Your task to perform on an android device: Open sound settings Image 0: 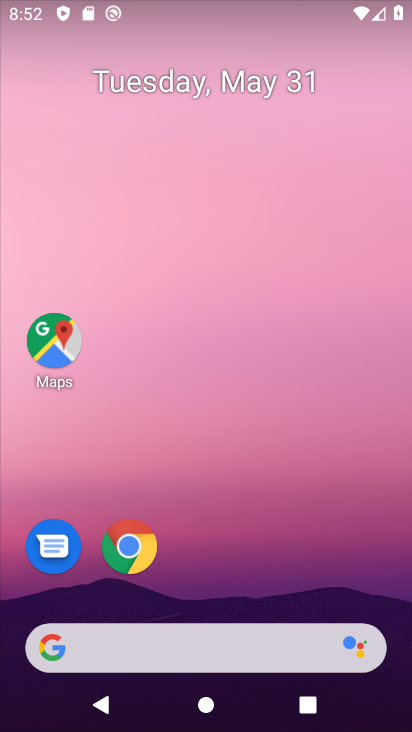
Step 0: drag from (402, 710) to (379, 150)
Your task to perform on an android device: Open sound settings Image 1: 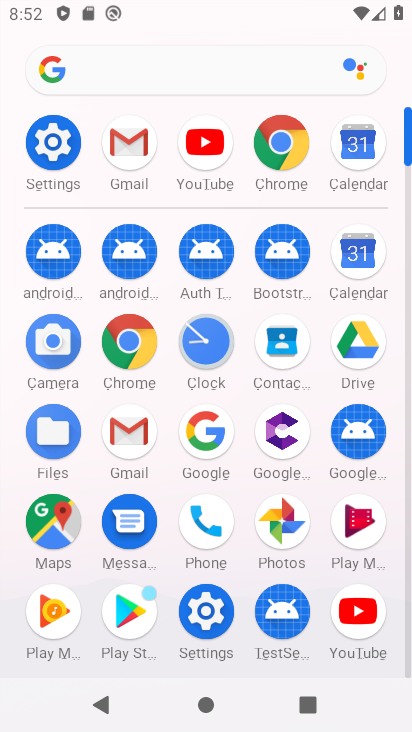
Step 1: click (66, 146)
Your task to perform on an android device: Open sound settings Image 2: 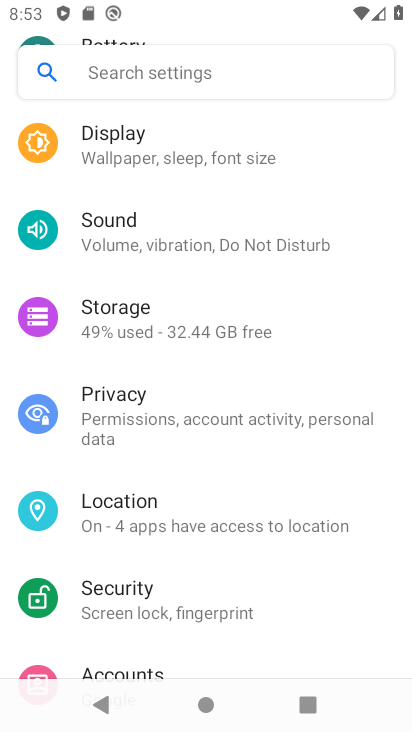
Step 2: click (109, 231)
Your task to perform on an android device: Open sound settings Image 3: 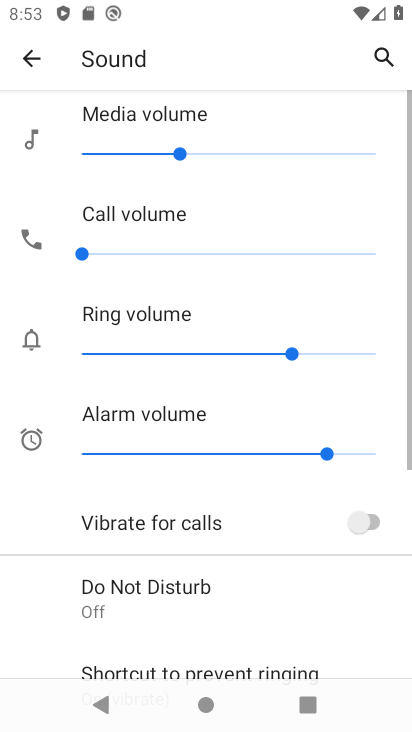
Step 3: drag from (315, 632) to (328, 75)
Your task to perform on an android device: Open sound settings Image 4: 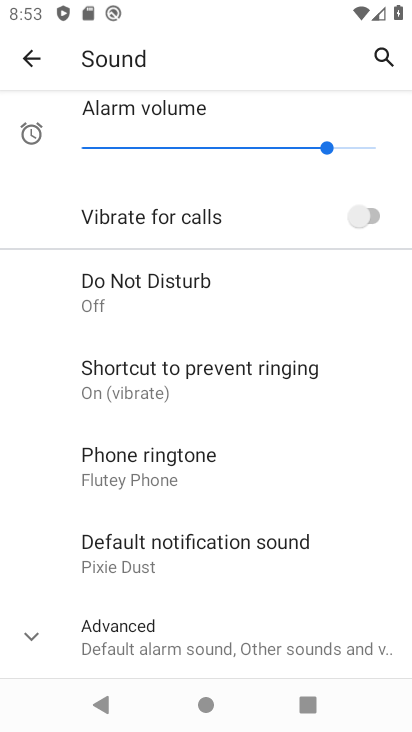
Step 4: click (28, 639)
Your task to perform on an android device: Open sound settings Image 5: 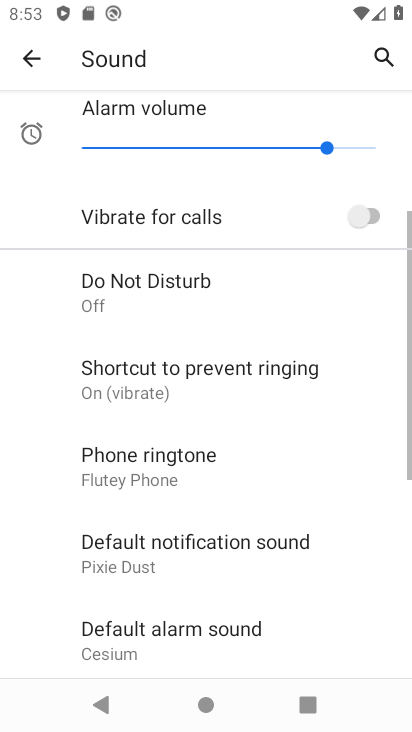
Step 5: task complete